Your task to perform on an android device: Open the web browser Image 0: 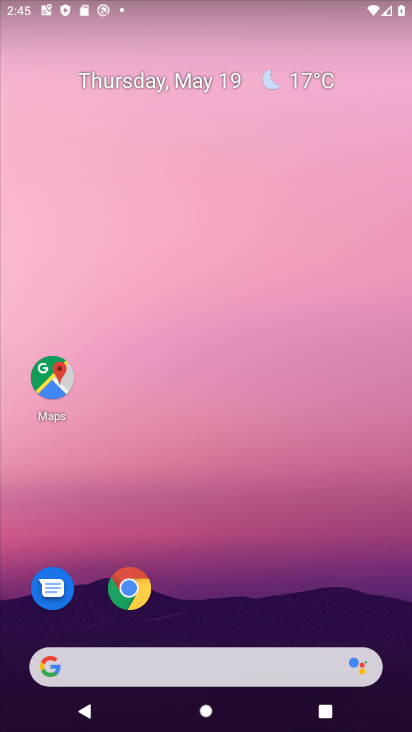
Step 0: click (127, 594)
Your task to perform on an android device: Open the web browser Image 1: 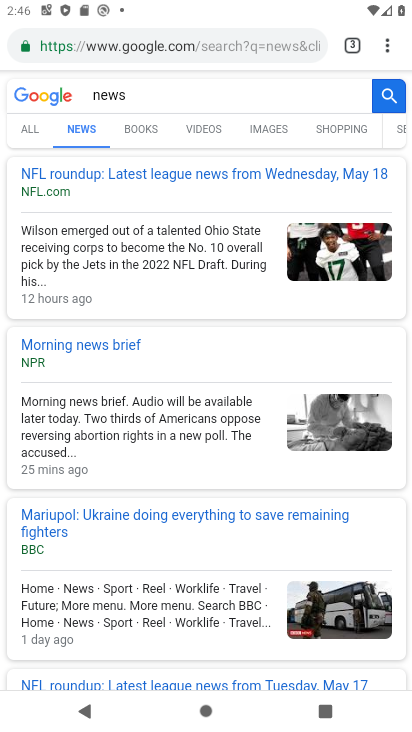
Step 1: task complete